Your task to perform on an android device: turn on showing notifications on the lock screen Image 0: 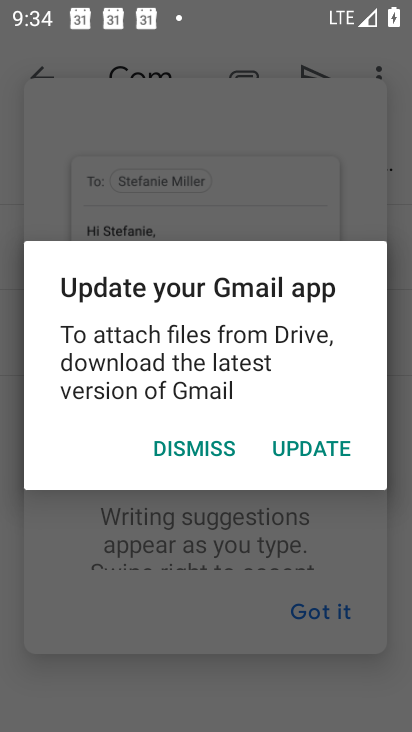
Step 0: click (326, 570)
Your task to perform on an android device: turn on showing notifications on the lock screen Image 1: 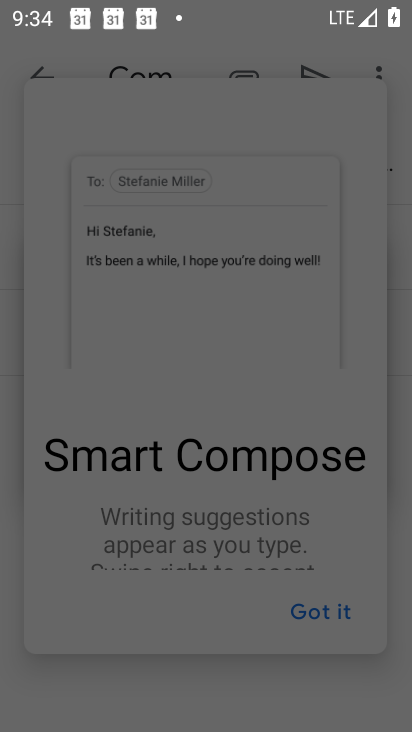
Step 1: press home button
Your task to perform on an android device: turn on showing notifications on the lock screen Image 2: 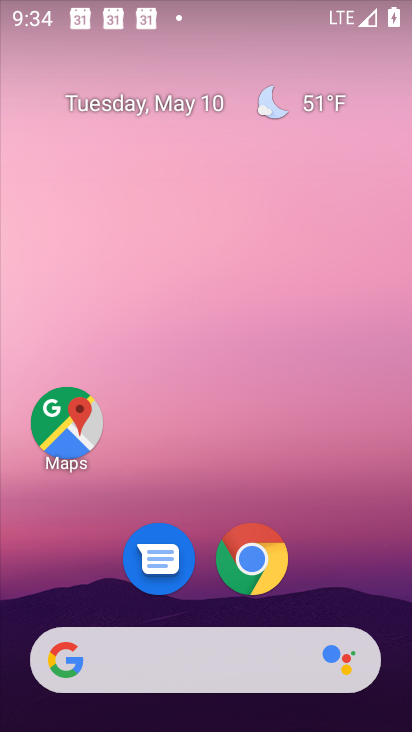
Step 2: drag from (338, 583) to (197, 92)
Your task to perform on an android device: turn on showing notifications on the lock screen Image 3: 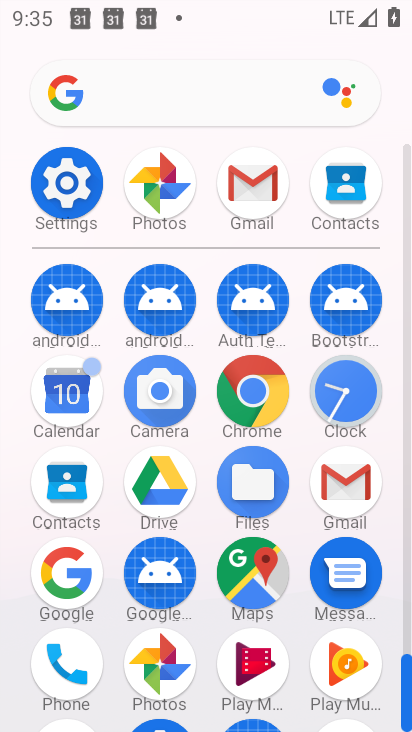
Step 3: click (66, 182)
Your task to perform on an android device: turn on showing notifications on the lock screen Image 4: 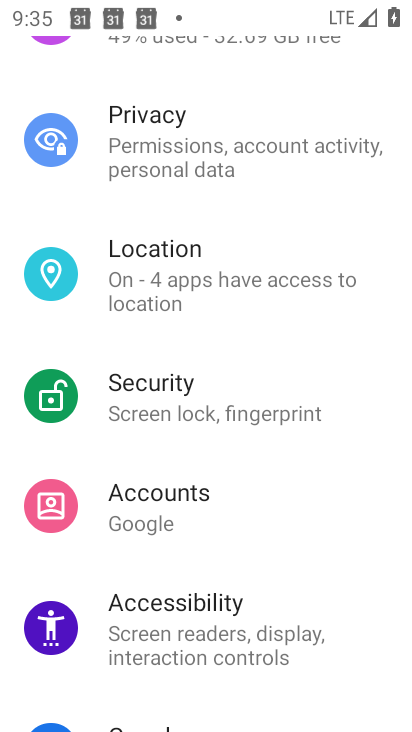
Step 4: drag from (209, 320) to (212, 402)
Your task to perform on an android device: turn on showing notifications on the lock screen Image 5: 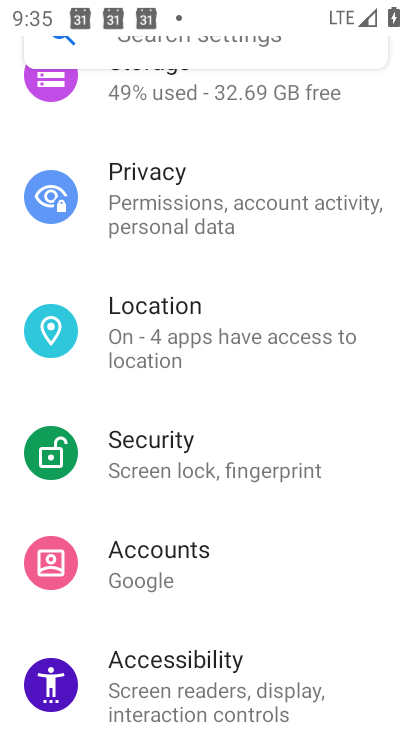
Step 5: drag from (227, 166) to (251, 320)
Your task to perform on an android device: turn on showing notifications on the lock screen Image 6: 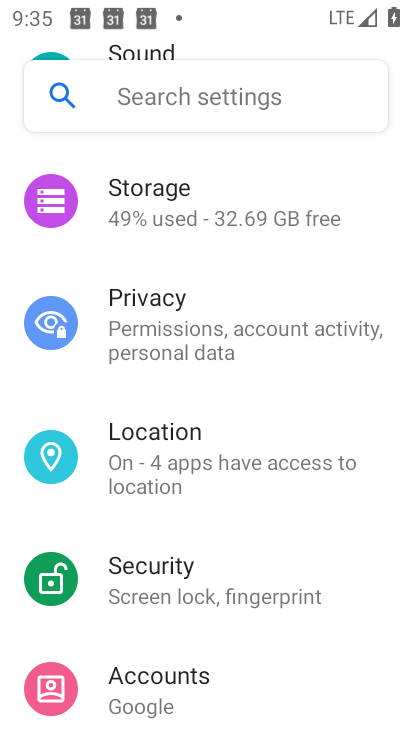
Step 6: drag from (223, 179) to (220, 402)
Your task to perform on an android device: turn on showing notifications on the lock screen Image 7: 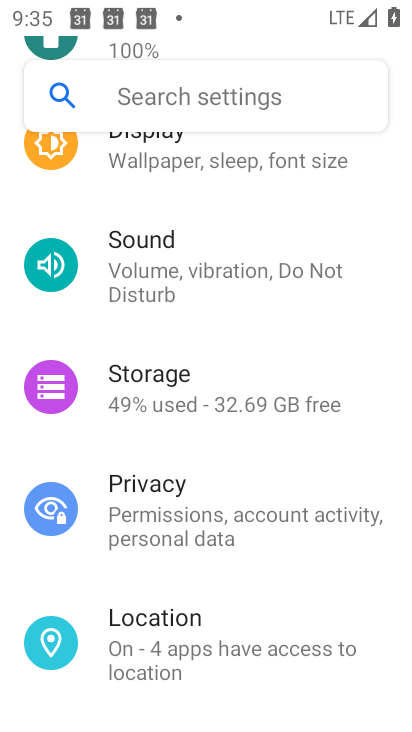
Step 7: drag from (215, 224) to (220, 398)
Your task to perform on an android device: turn on showing notifications on the lock screen Image 8: 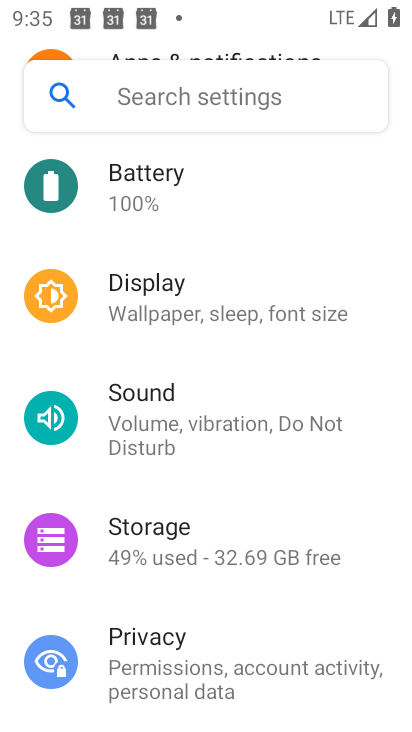
Step 8: drag from (193, 248) to (195, 414)
Your task to perform on an android device: turn on showing notifications on the lock screen Image 9: 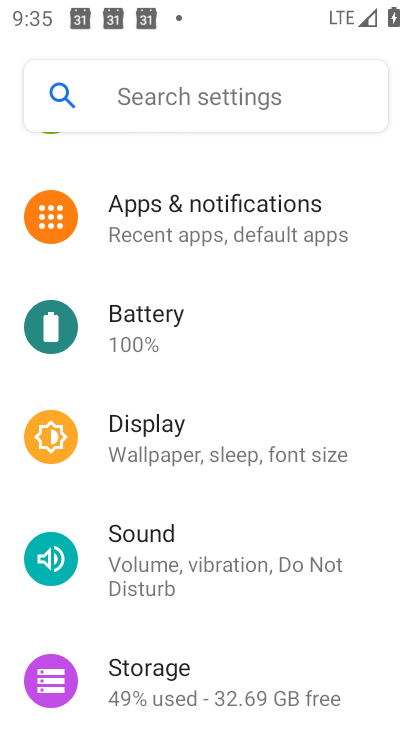
Step 9: click (175, 224)
Your task to perform on an android device: turn on showing notifications on the lock screen Image 10: 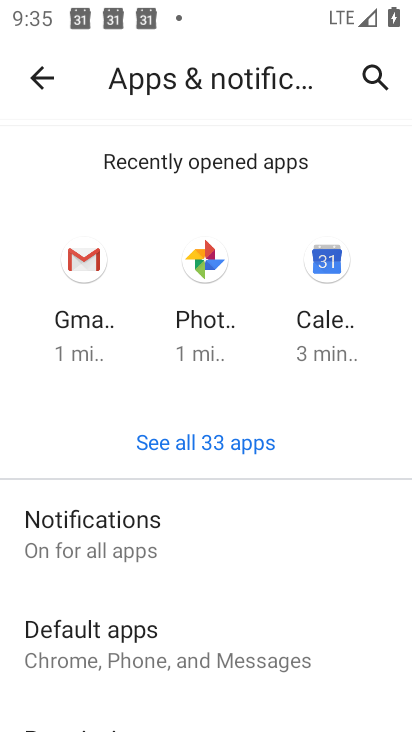
Step 10: click (127, 519)
Your task to perform on an android device: turn on showing notifications on the lock screen Image 11: 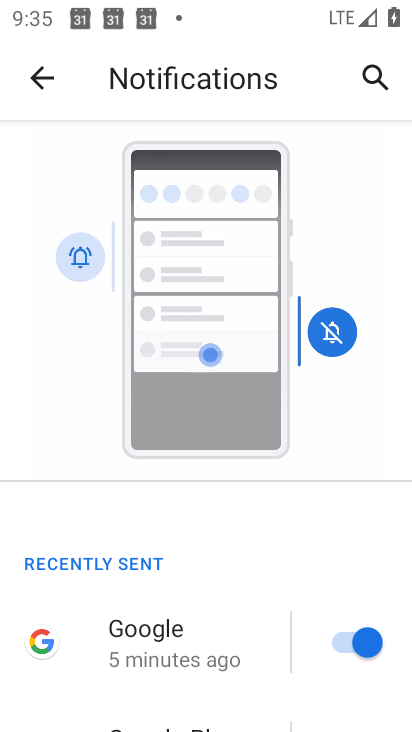
Step 11: task complete